Your task to perform on an android device: Open network settings Image 0: 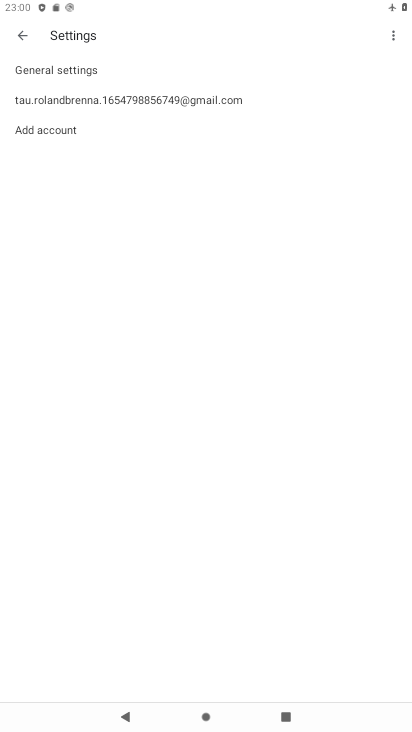
Step 0: press home button
Your task to perform on an android device: Open network settings Image 1: 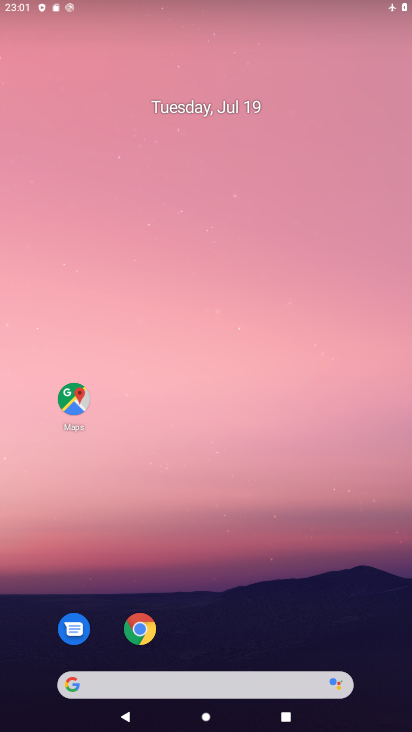
Step 1: drag from (205, 654) to (221, 7)
Your task to perform on an android device: Open network settings Image 2: 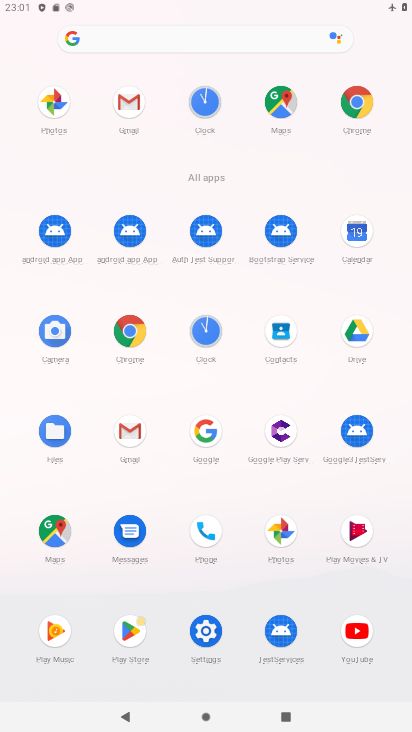
Step 2: click (195, 624)
Your task to perform on an android device: Open network settings Image 3: 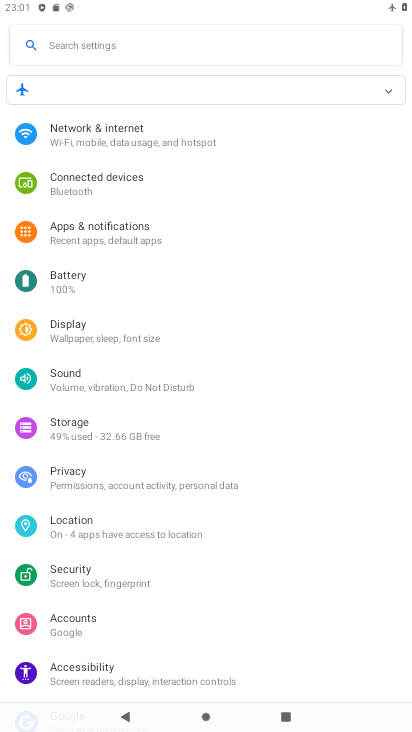
Step 3: click (104, 125)
Your task to perform on an android device: Open network settings Image 4: 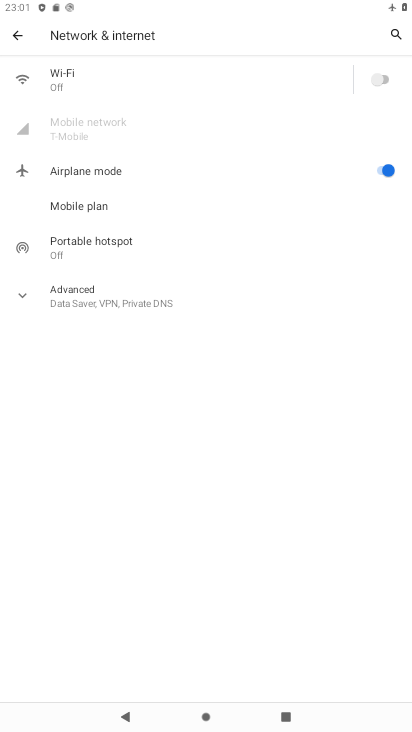
Step 4: click (55, 299)
Your task to perform on an android device: Open network settings Image 5: 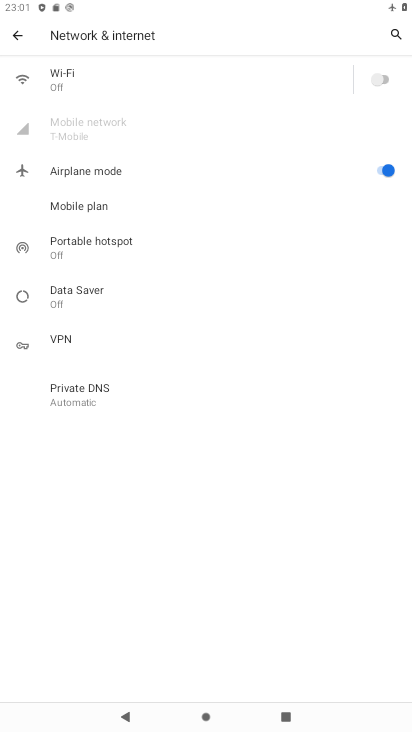
Step 5: task complete